Your task to perform on an android device: snooze an email in the gmail app Image 0: 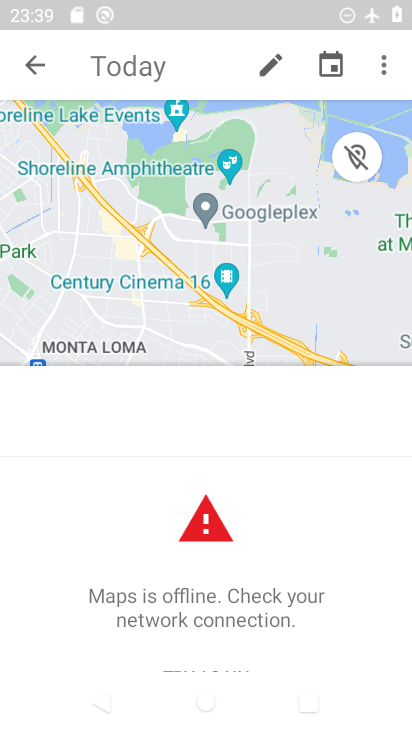
Step 0: press home button
Your task to perform on an android device: snooze an email in the gmail app Image 1: 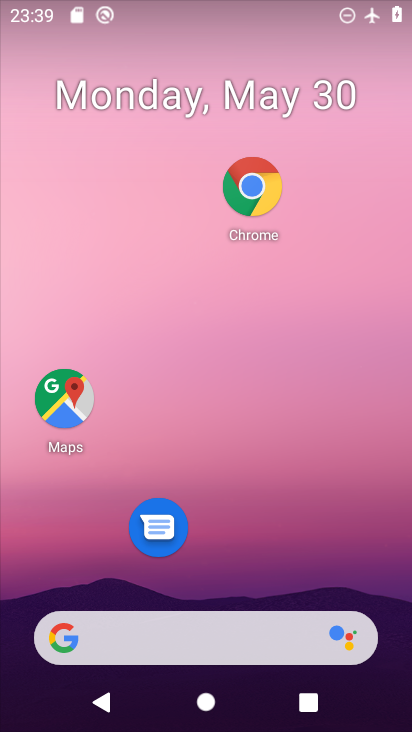
Step 1: drag from (261, 545) to (200, 170)
Your task to perform on an android device: snooze an email in the gmail app Image 2: 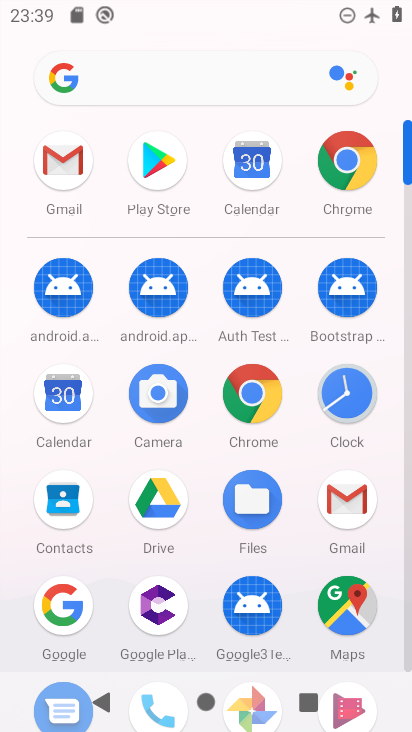
Step 2: click (342, 482)
Your task to perform on an android device: snooze an email in the gmail app Image 3: 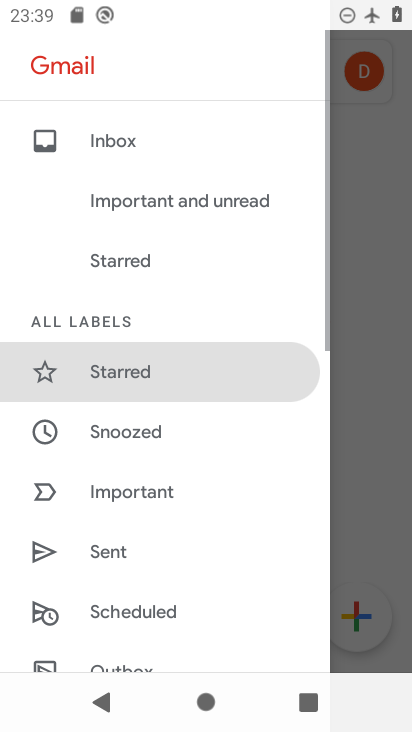
Step 3: click (382, 324)
Your task to perform on an android device: snooze an email in the gmail app Image 4: 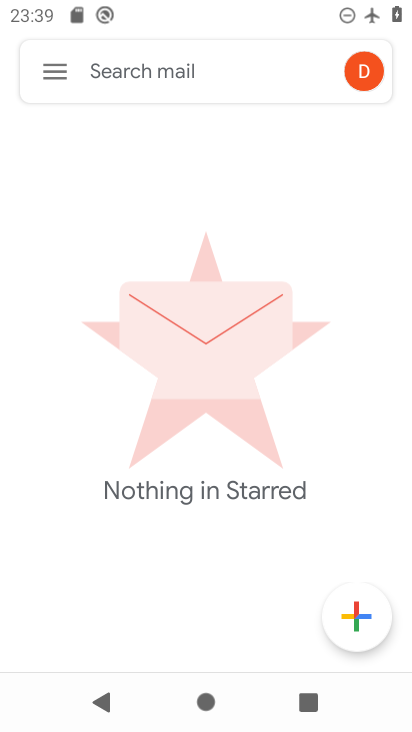
Step 4: click (54, 65)
Your task to perform on an android device: snooze an email in the gmail app Image 5: 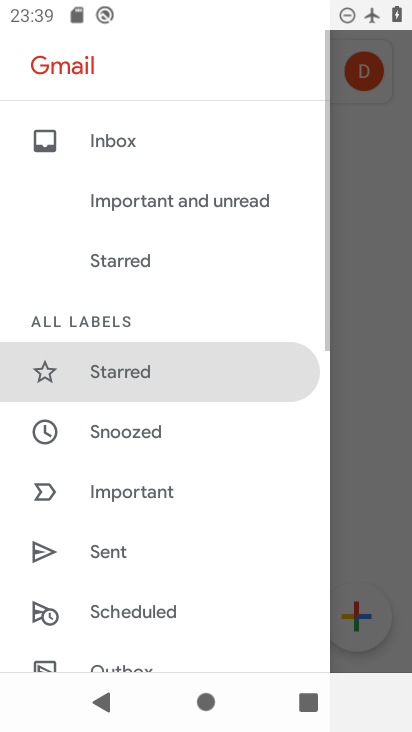
Step 5: click (152, 436)
Your task to perform on an android device: snooze an email in the gmail app Image 6: 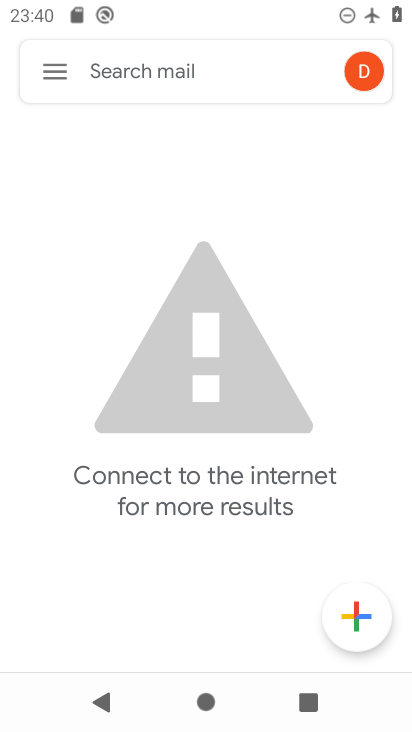
Step 6: task complete